Your task to perform on an android device: open chrome privacy settings Image 0: 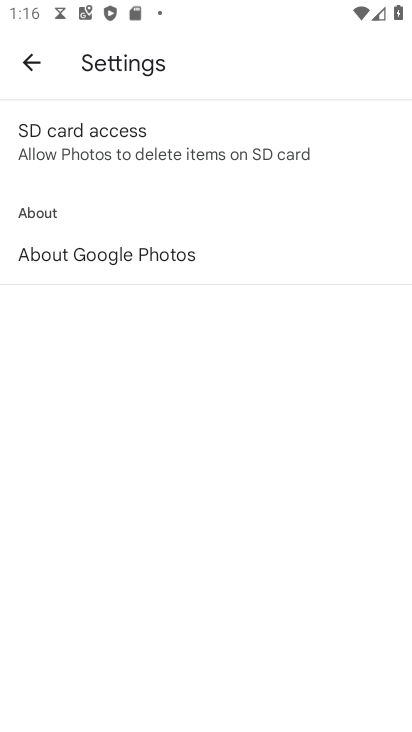
Step 0: press home button
Your task to perform on an android device: open chrome privacy settings Image 1: 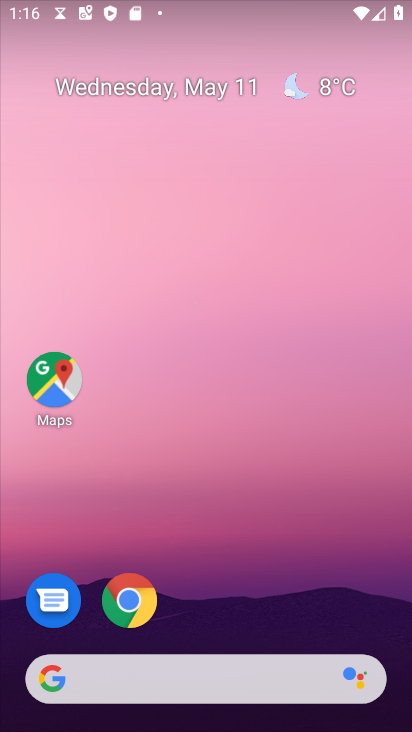
Step 1: click (127, 602)
Your task to perform on an android device: open chrome privacy settings Image 2: 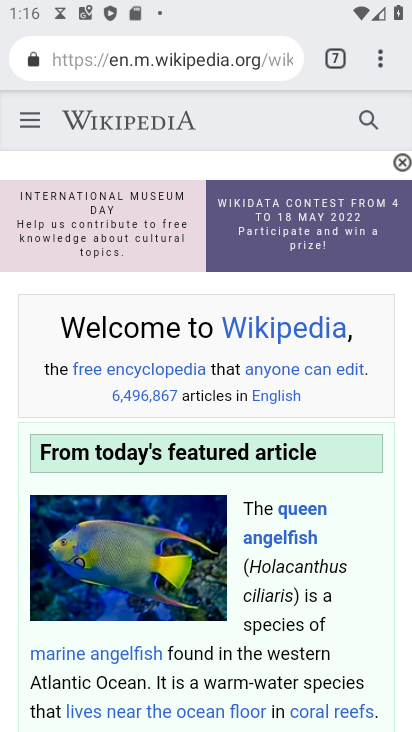
Step 2: click (372, 57)
Your task to perform on an android device: open chrome privacy settings Image 3: 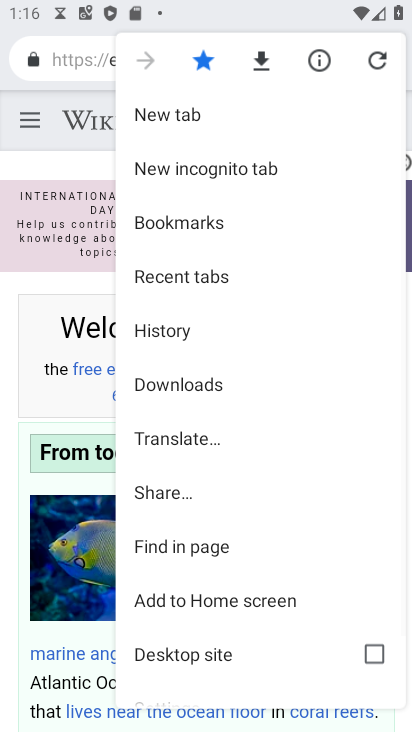
Step 3: drag from (221, 642) to (215, 341)
Your task to perform on an android device: open chrome privacy settings Image 4: 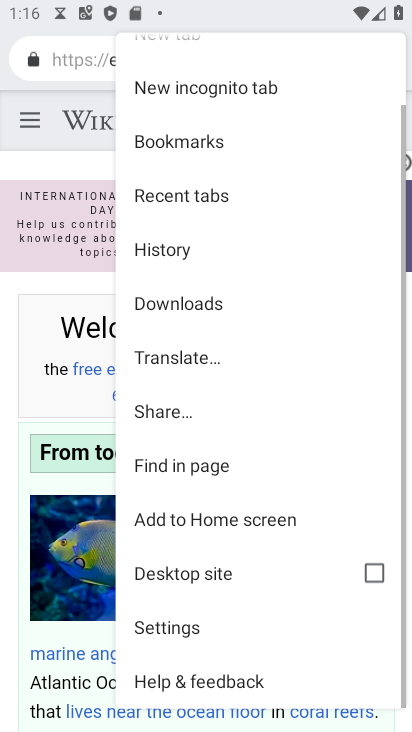
Step 4: click (190, 627)
Your task to perform on an android device: open chrome privacy settings Image 5: 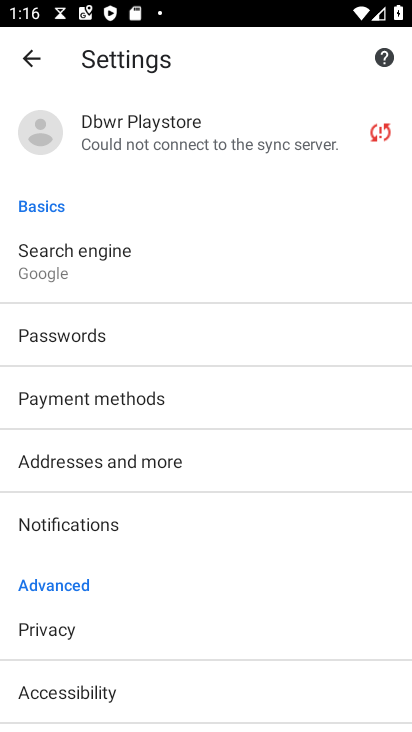
Step 5: drag from (178, 619) to (176, 189)
Your task to perform on an android device: open chrome privacy settings Image 6: 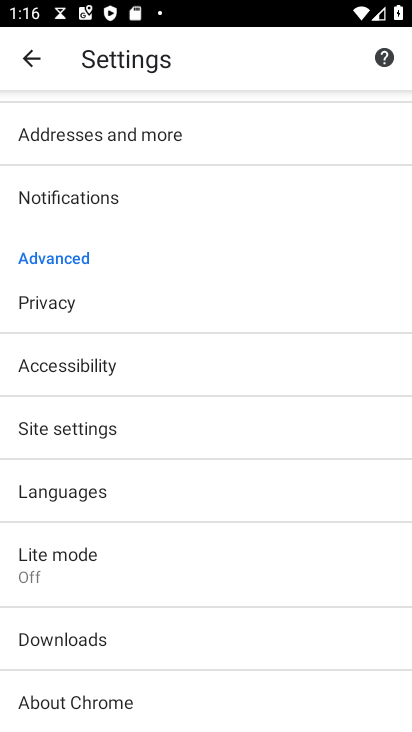
Step 6: click (119, 288)
Your task to perform on an android device: open chrome privacy settings Image 7: 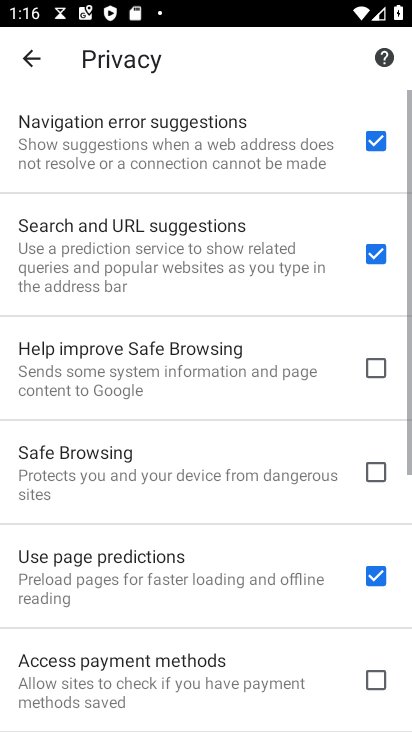
Step 7: task complete